Your task to perform on an android device: allow notifications from all sites in the chrome app Image 0: 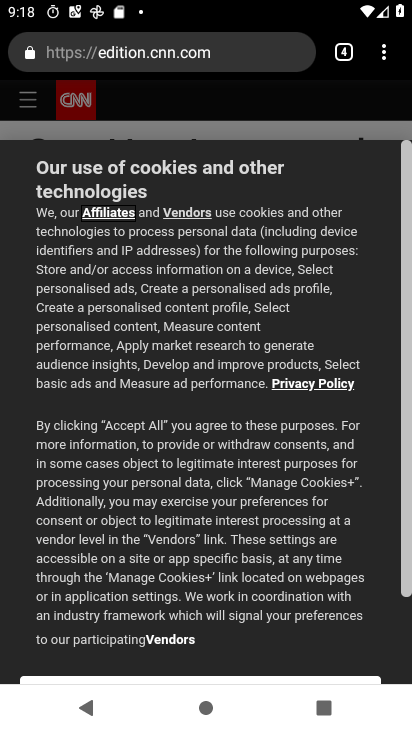
Step 0: click (392, 53)
Your task to perform on an android device: allow notifications from all sites in the chrome app Image 1: 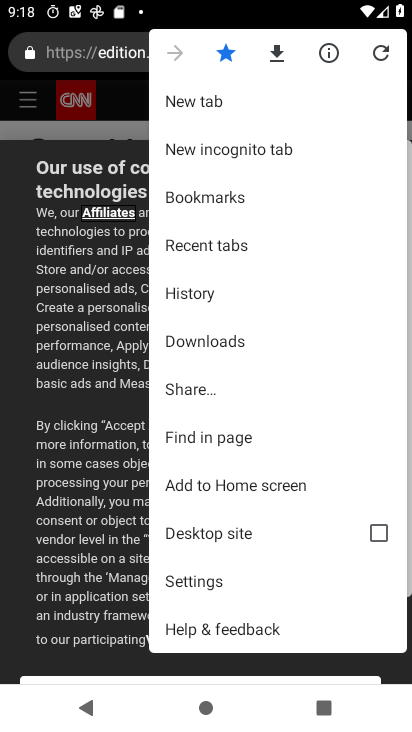
Step 1: drag from (293, 513) to (313, 199)
Your task to perform on an android device: allow notifications from all sites in the chrome app Image 2: 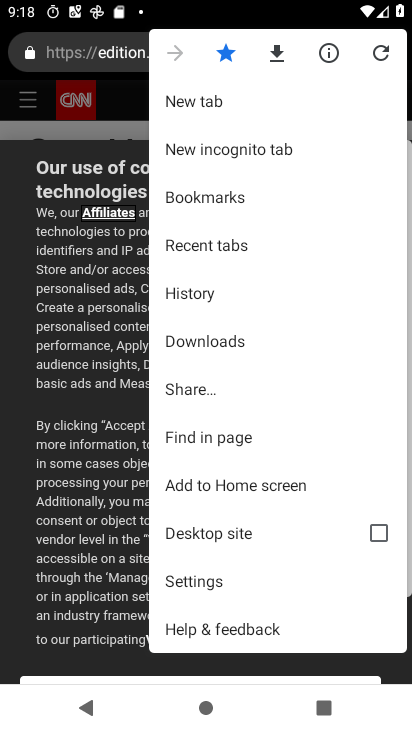
Step 2: click (210, 577)
Your task to perform on an android device: allow notifications from all sites in the chrome app Image 3: 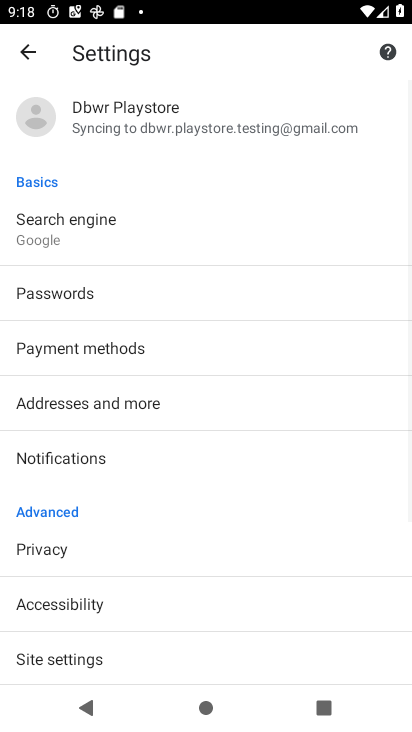
Step 3: click (124, 449)
Your task to perform on an android device: allow notifications from all sites in the chrome app Image 4: 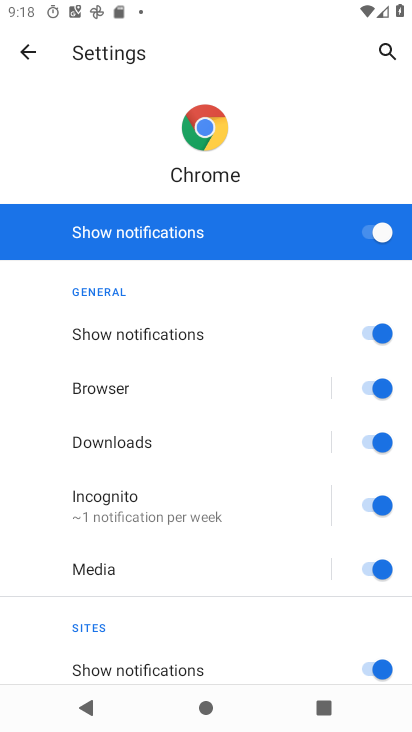
Step 4: task complete